Your task to perform on an android device: turn on priority inbox in the gmail app Image 0: 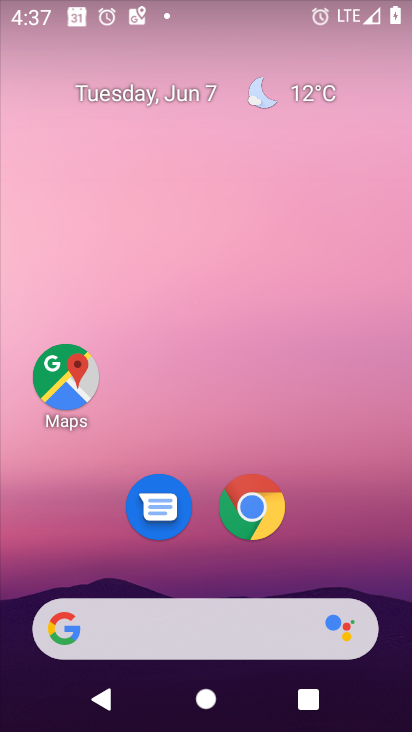
Step 0: drag from (365, 524) to (217, 5)
Your task to perform on an android device: turn on priority inbox in the gmail app Image 1: 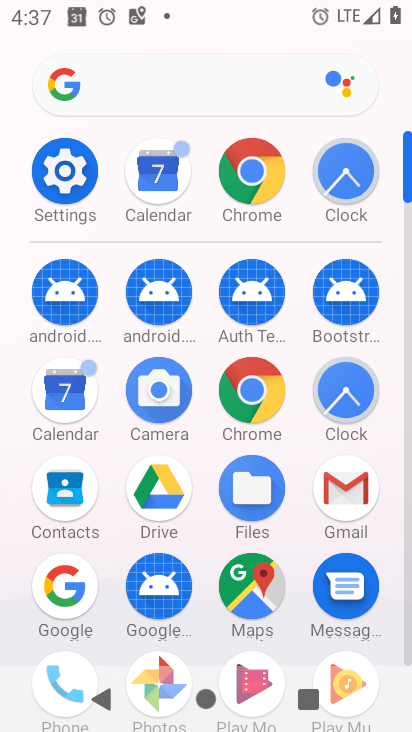
Step 1: drag from (2, 612) to (18, 273)
Your task to perform on an android device: turn on priority inbox in the gmail app Image 2: 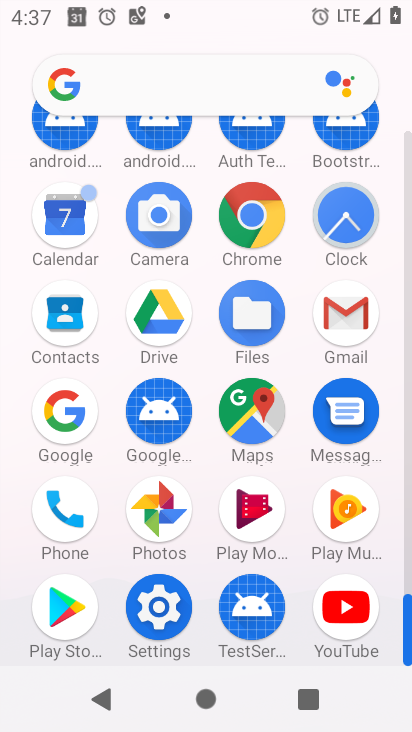
Step 2: click (340, 307)
Your task to perform on an android device: turn on priority inbox in the gmail app Image 3: 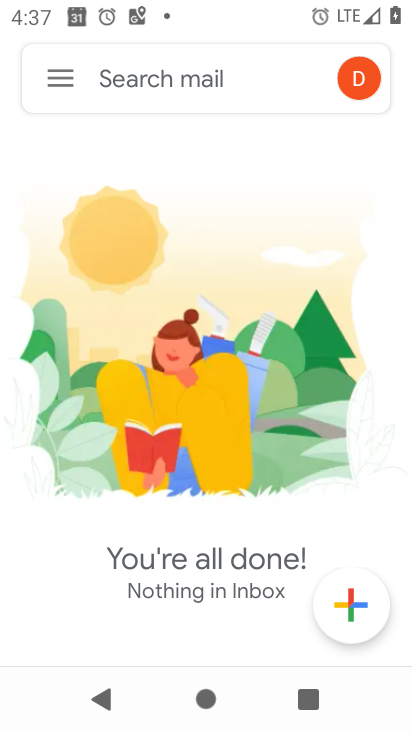
Step 3: click (57, 79)
Your task to perform on an android device: turn on priority inbox in the gmail app Image 4: 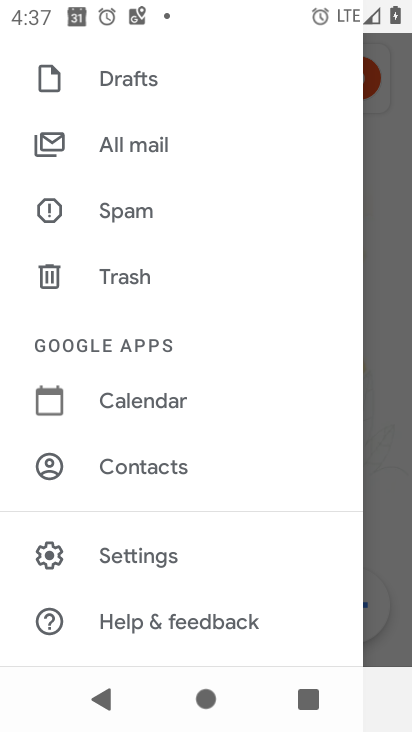
Step 4: click (180, 554)
Your task to perform on an android device: turn on priority inbox in the gmail app Image 5: 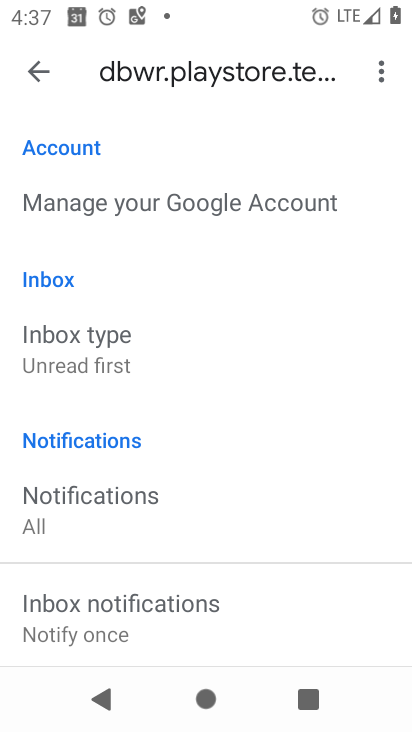
Step 5: click (116, 352)
Your task to perform on an android device: turn on priority inbox in the gmail app Image 6: 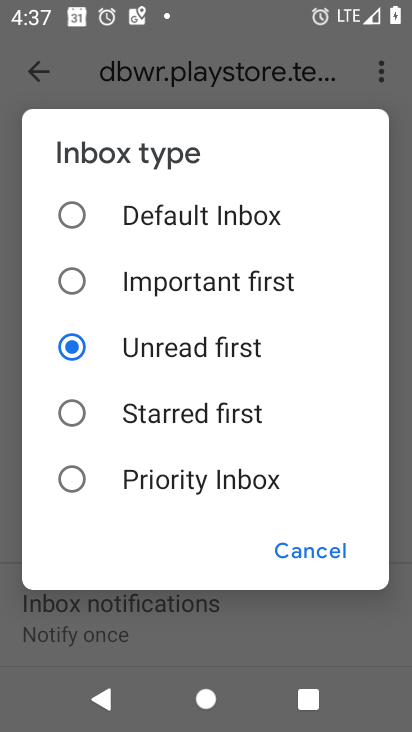
Step 6: click (155, 471)
Your task to perform on an android device: turn on priority inbox in the gmail app Image 7: 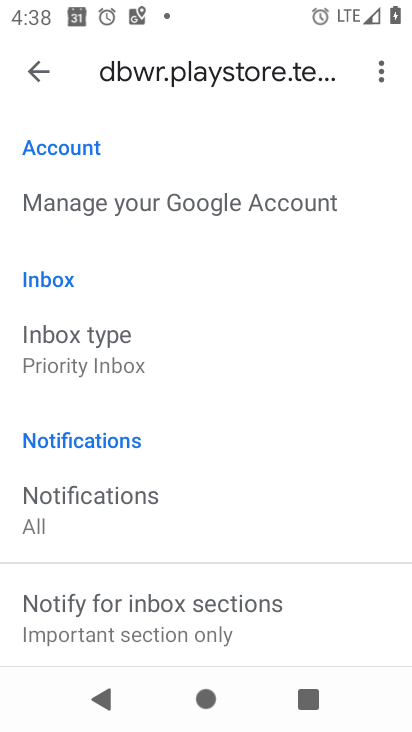
Step 7: task complete